Your task to perform on an android device: turn on improve location accuracy Image 0: 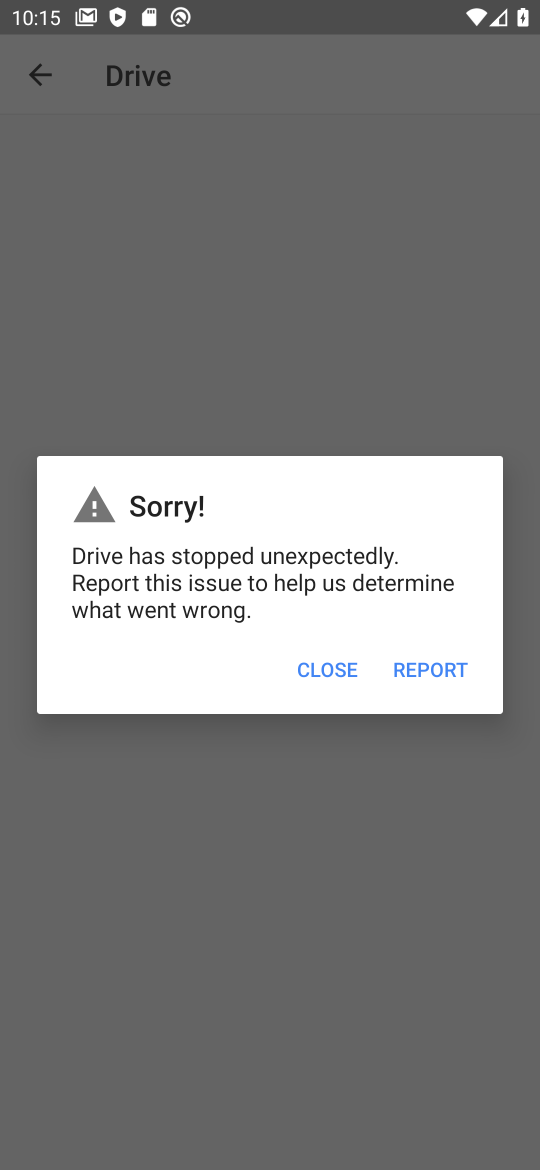
Step 0: press home button
Your task to perform on an android device: turn on improve location accuracy Image 1: 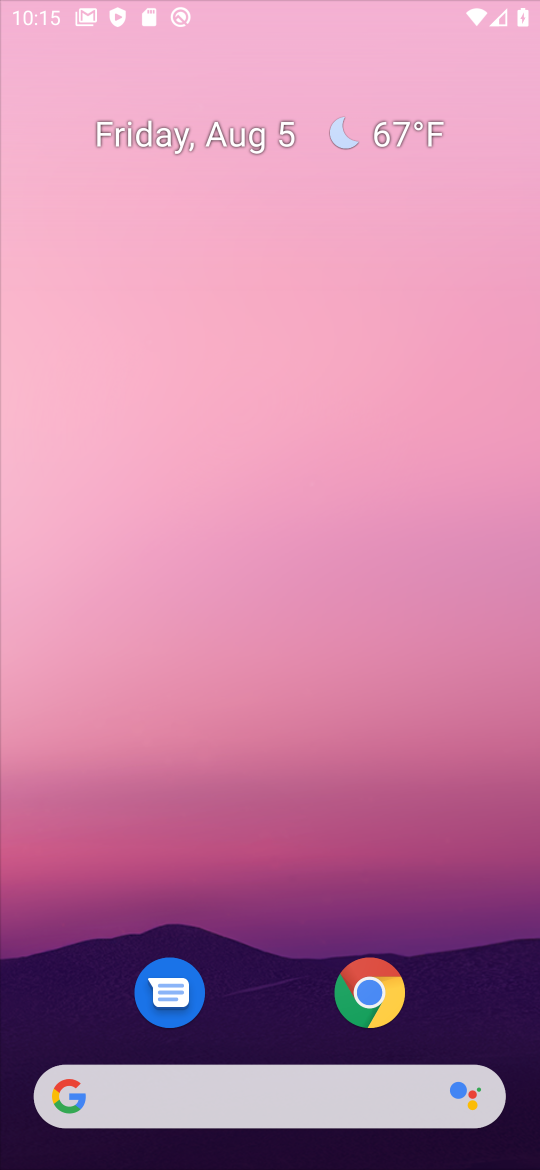
Step 1: drag from (381, 895) to (465, 2)
Your task to perform on an android device: turn on improve location accuracy Image 2: 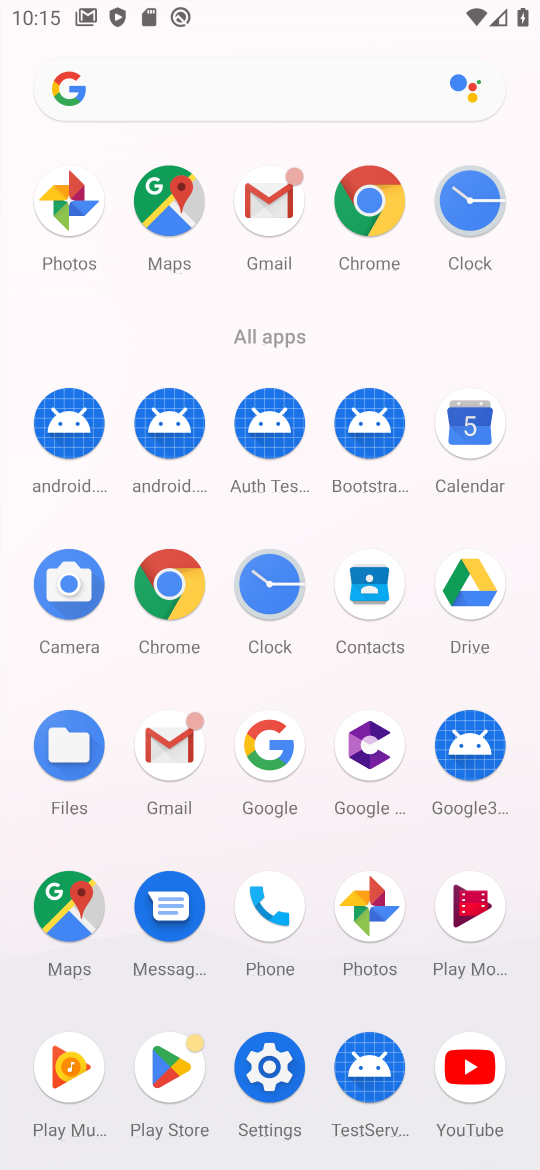
Step 2: click (256, 1063)
Your task to perform on an android device: turn on improve location accuracy Image 3: 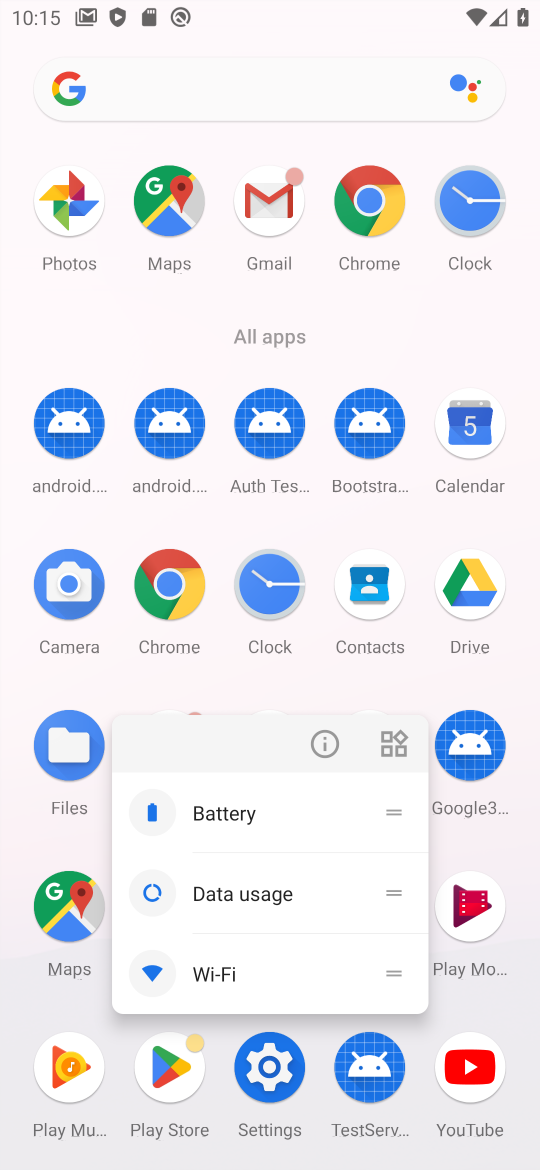
Step 3: click (294, 1081)
Your task to perform on an android device: turn on improve location accuracy Image 4: 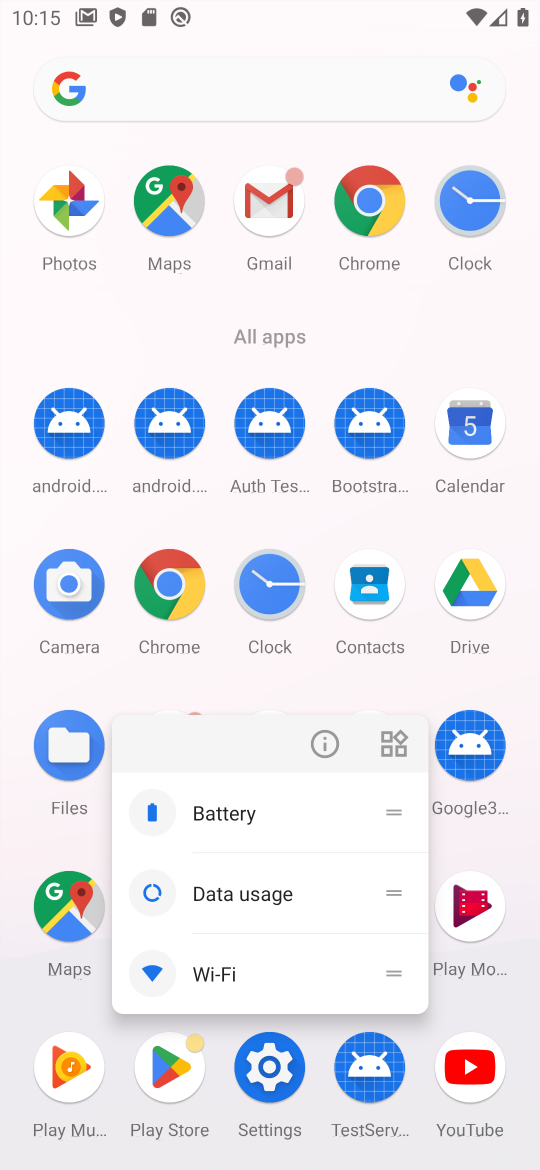
Step 4: click (294, 1076)
Your task to perform on an android device: turn on improve location accuracy Image 5: 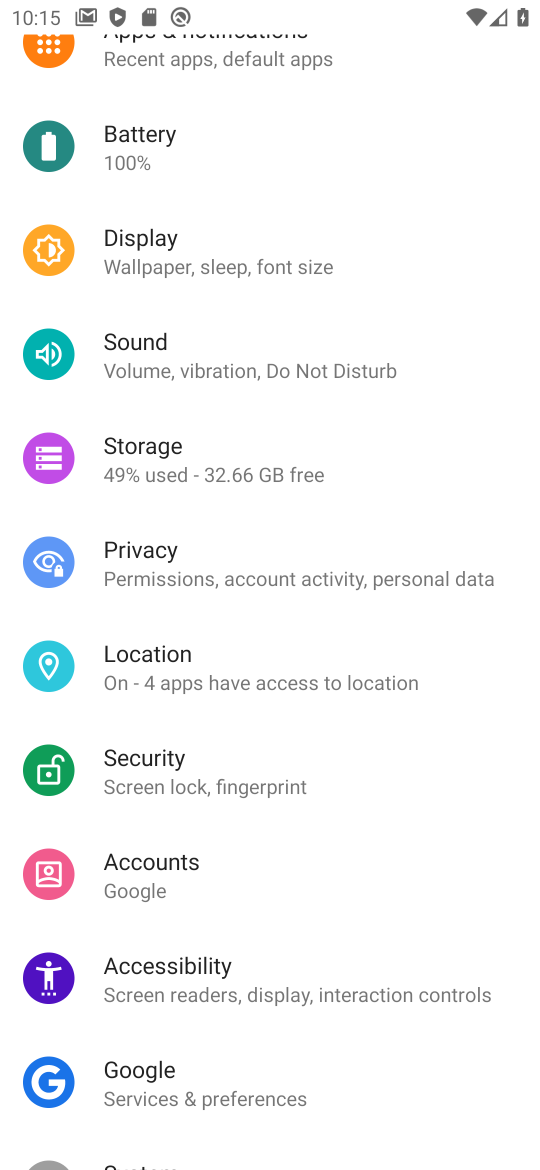
Step 5: click (174, 671)
Your task to perform on an android device: turn on improve location accuracy Image 6: 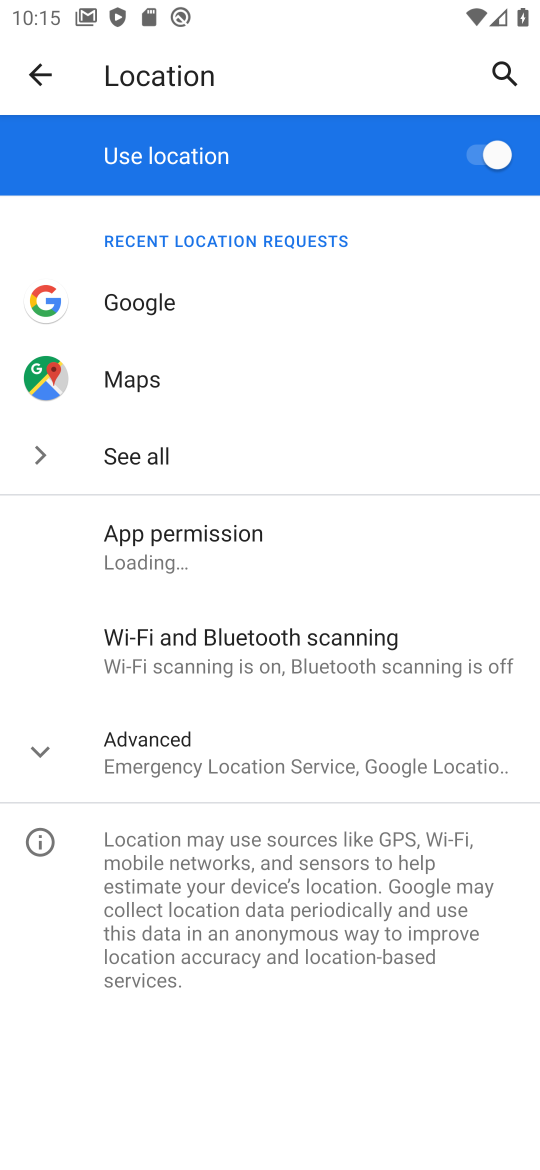
Step 6: click (169, 740)
Your task to perform on an android device: turn on improve location accuracy Image 7: 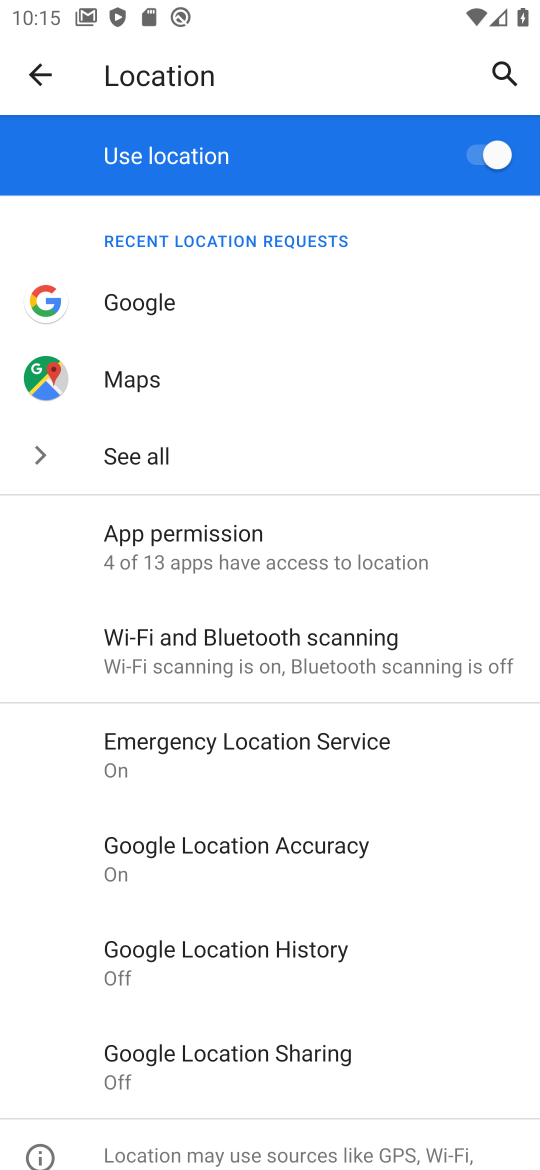
Step 7: drag from (270, 1042) to (365, 431)
Your task to perform on an android device: turn on improve location accuracy Image 8: 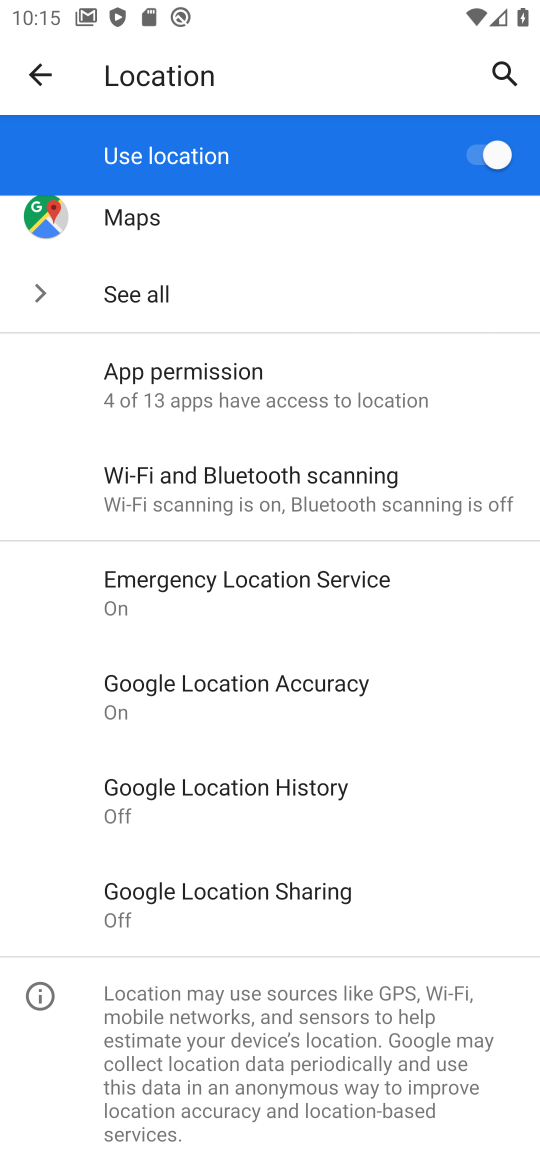
Step 8: click (306, 692)
Your task to perform on an android device: turn on improve location accuracy Image 9: 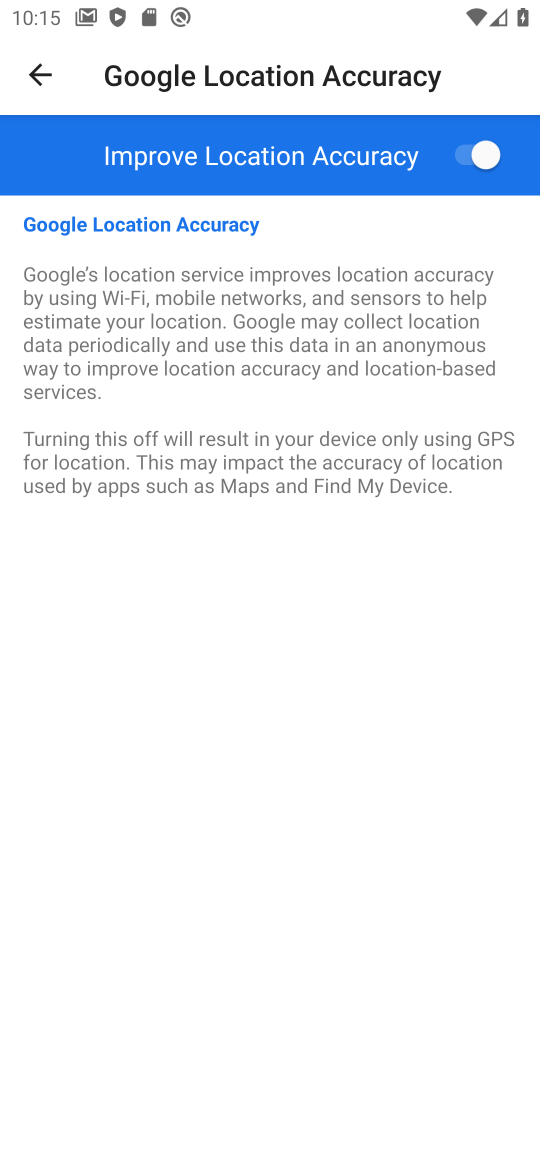
Step 9: task complete